Your task to perform on an android device: find snoozed emails in the gmail app Image 0: 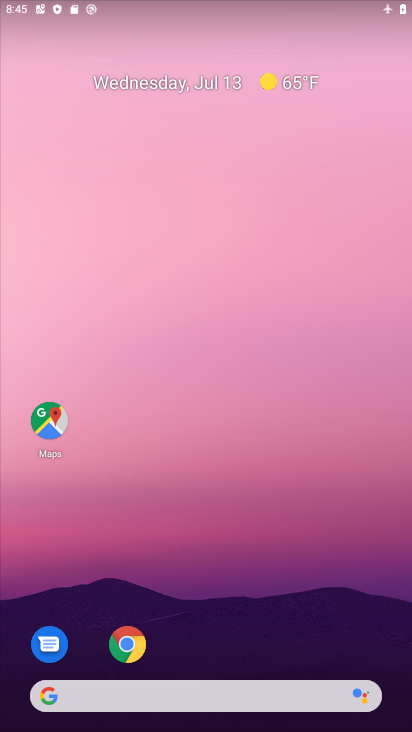
Step 0: drag from (318, 579) to (317, 4)
Your task to perform on an android device: find snoozed emails in the gmail app Image 1: 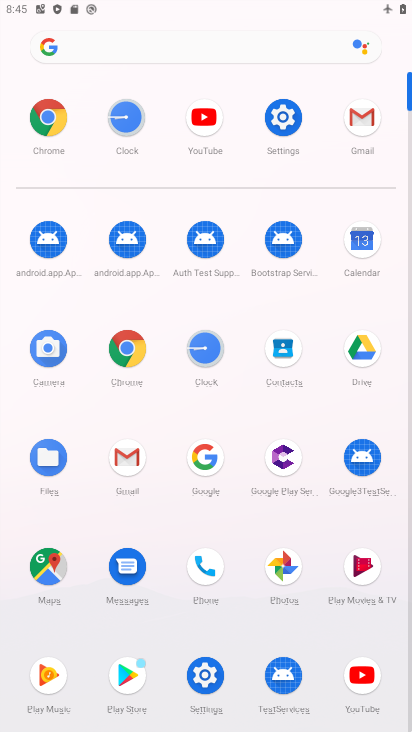
Step 1: click (362, 130)
Your task to perform on an android device: find snoozed emails in the gmail app Image 2: 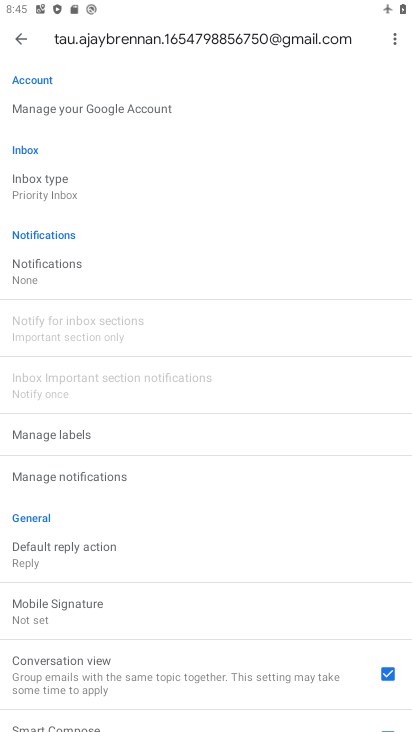
Step 2: click (5, 44)
Your task to perform on an android device: find snoozed emails in the gmail app Image 3: 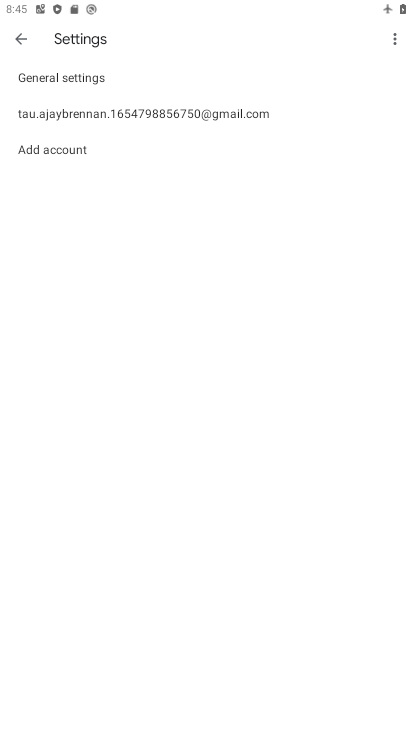
Step 3: click (20, 44)
Your task to perform on an android device: find snoozed emails in the gmail app Image 4: 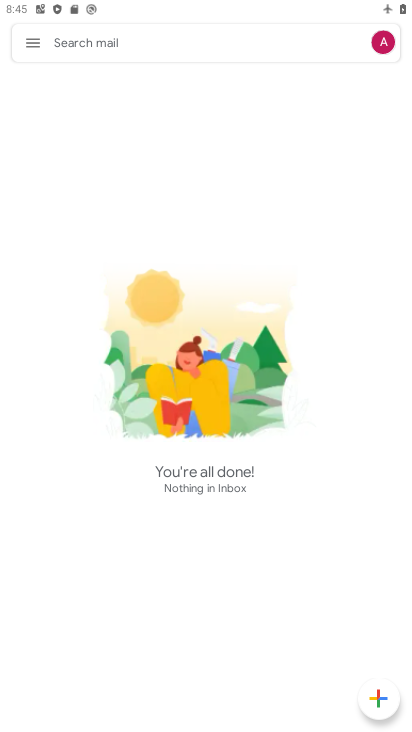
Step 4: click (26, 44)
Your task to perform on an android device: find snoozed emails in the gmail app Image 5: 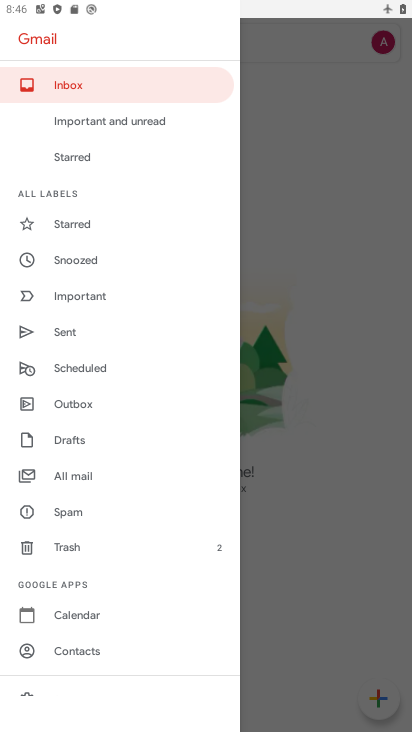
Step 5: click (85, 262)
Your task to perform on an android device: find snoozed emails in the gmail app Image 6: 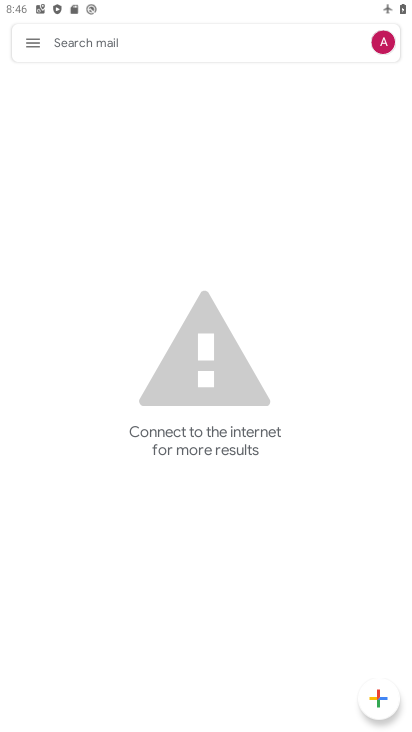
Step 6: task complete